Your task to perform on an android device: Open Google Chrome and open the bookmarks view Image 0: 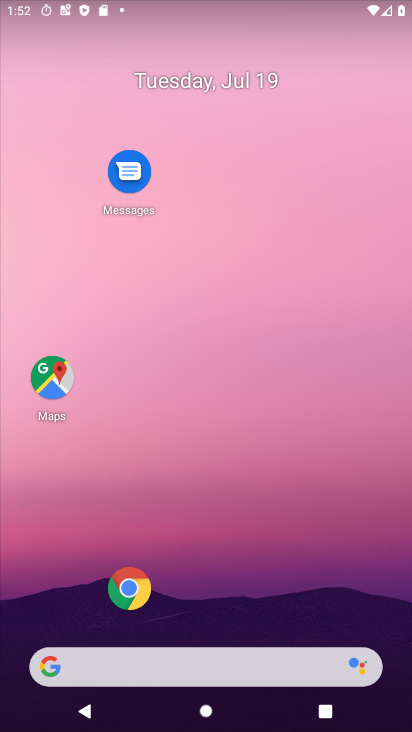
Step 0: drag from (74, 596) to (209, 17)
Your task to perform on an android device: Open Google Chrome and open the bookmarks view Image 1: 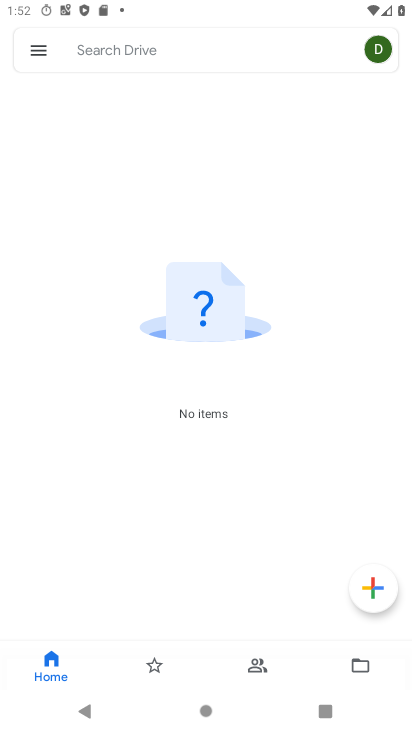
Step 1: press home button
Your task to perform on an android device: Open Google Chrome and open the bookmarks view Image 2: 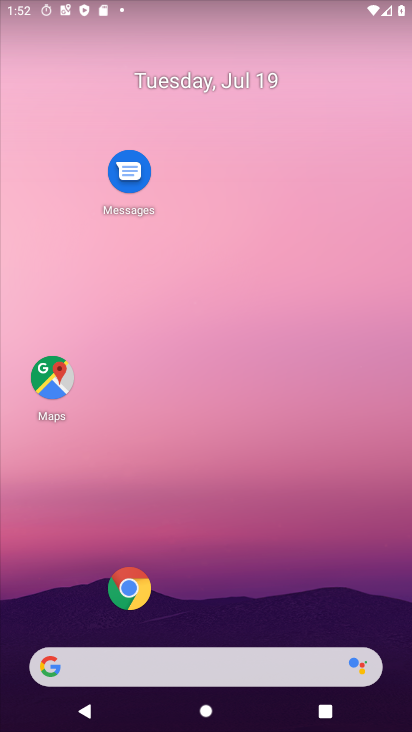
Step 2: drag from (38, 701) to (173, 191)
Your task to perform on an android device: Open Google Chrome and open the bookmarks view Image 3: 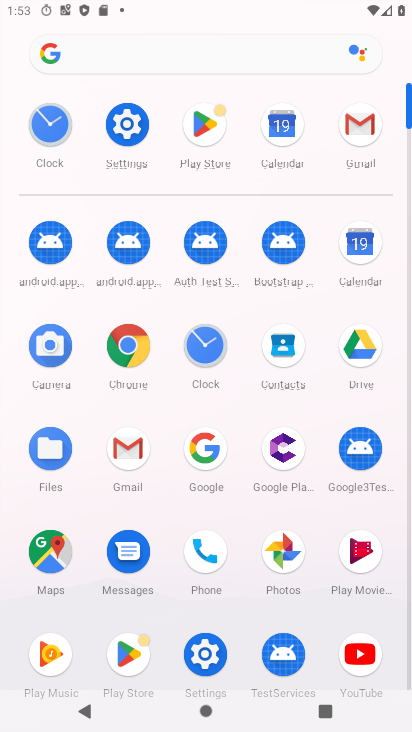
Step 3: click (355, 649)
Your task to perform on an android device: Open Google Chrome and open the bookmarks view Image 4: 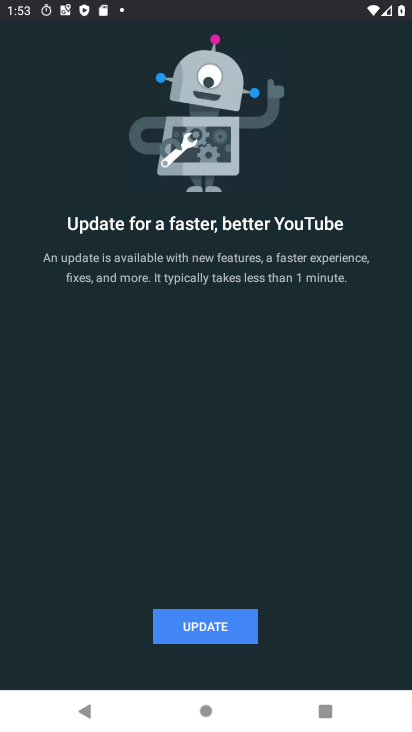
Step 4: press home button
Your task to perform on an android device: Open Google Chrome and open the bookmarks view Image 5: 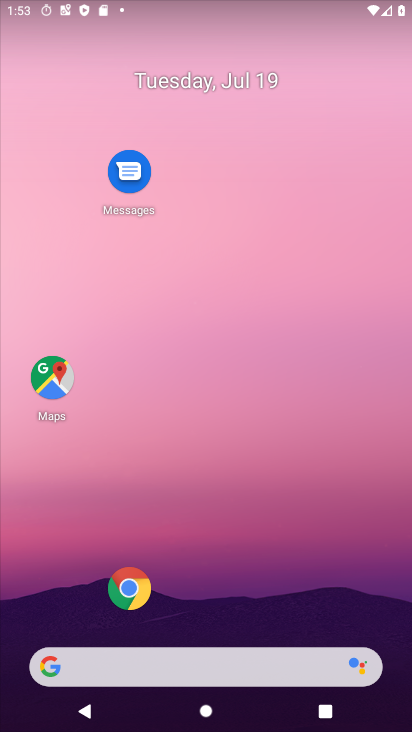
Step 5: click (120, 588)
Your task to perform on an android device: Open Google Chrome and open the bookmarks view Image 6: 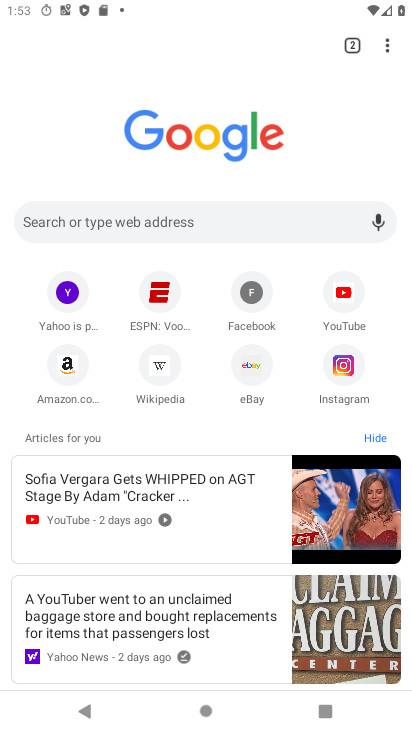
Step 6: click (389, 42)
Your task to perform on an android device: Open Google Chrome and open the bookmarks view Image 7: 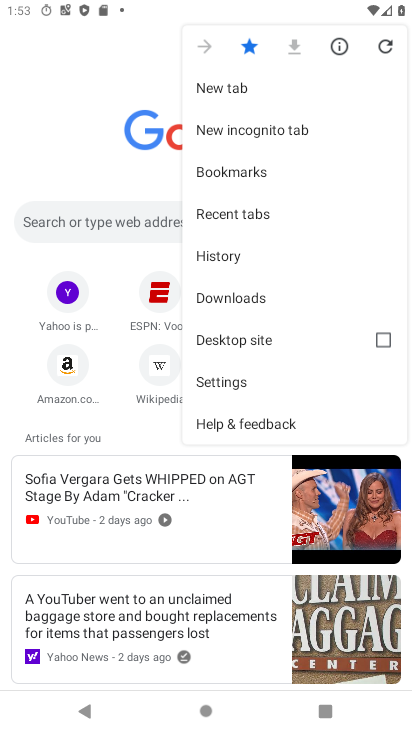
Step 7: click (221, 175)
Your task to perform on an android device: Open Google Chrome and open the bookmarks view Image 8: 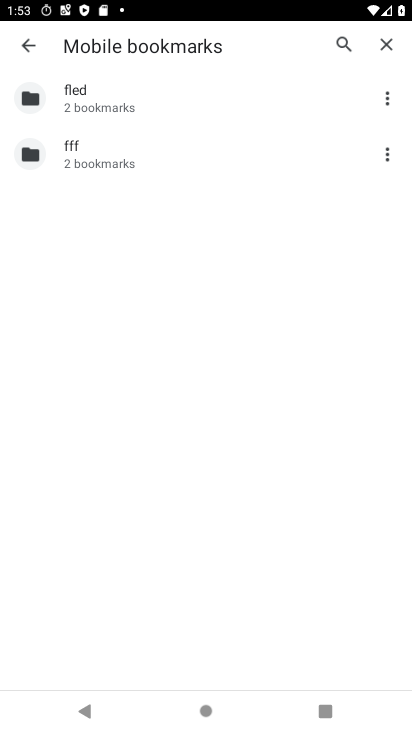
Step 8: task complete